Your task to perform on an android device: Add logitech g pro to the cart on bestbuy, then select checkout. Image 0: 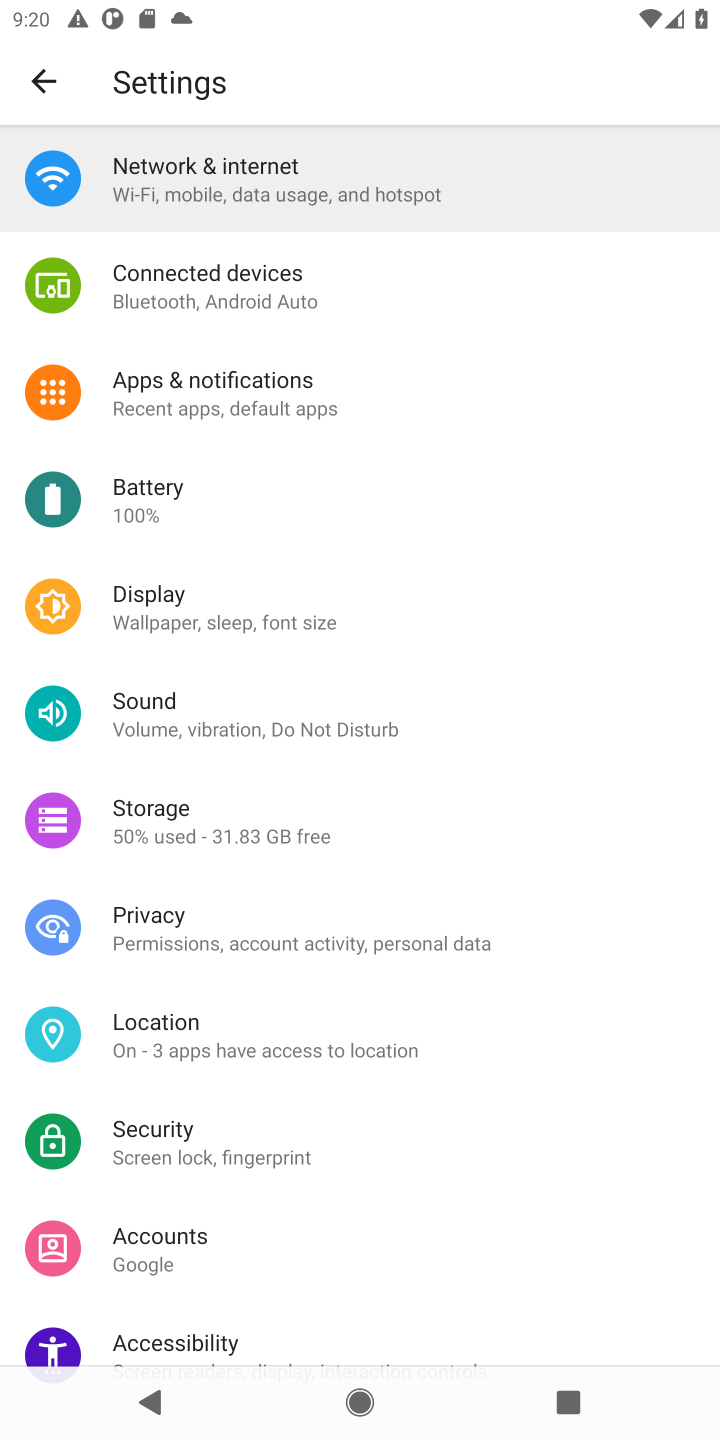
Step 0: press home button
Your task to perform on an android device: Add logitech g pro to the cart on bestbuy, then select checkout. Image 1: 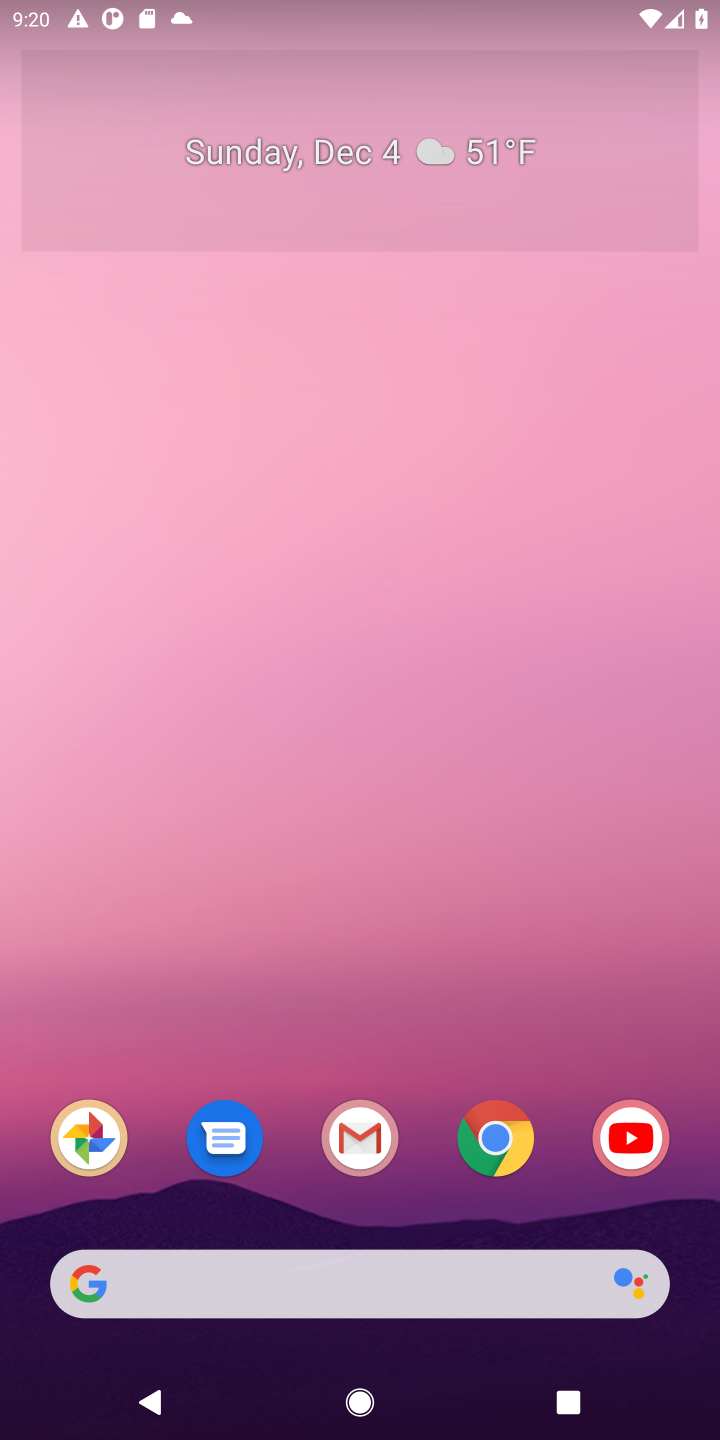
Step 1: click (478, 1144)
Your task to perform on an android device: Add logitech g pro to the cart on bestbuy, then select checkout. Image 2: 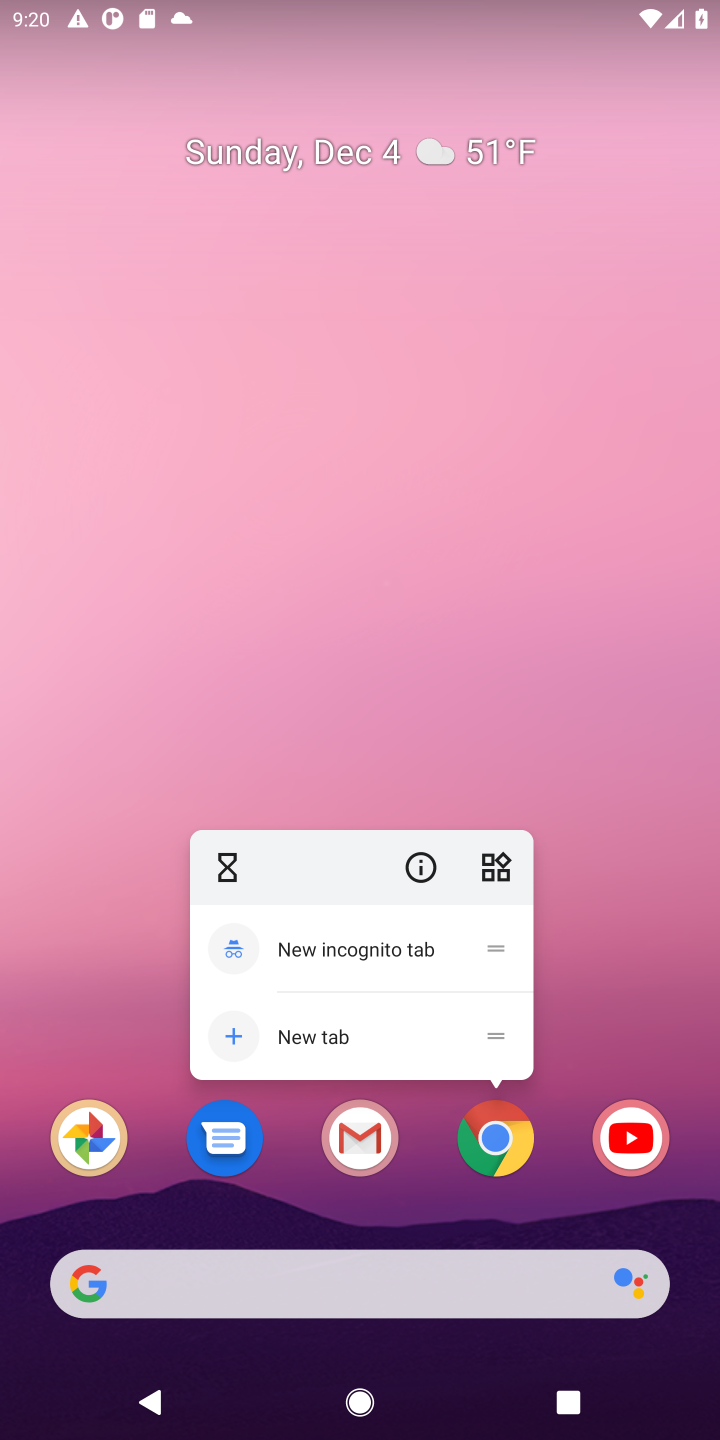
Step 2: click (478, 1144)
Your task to perform on an android device: Add logitech g pro to the cart on bestbuy, then select checkout. Image 3: 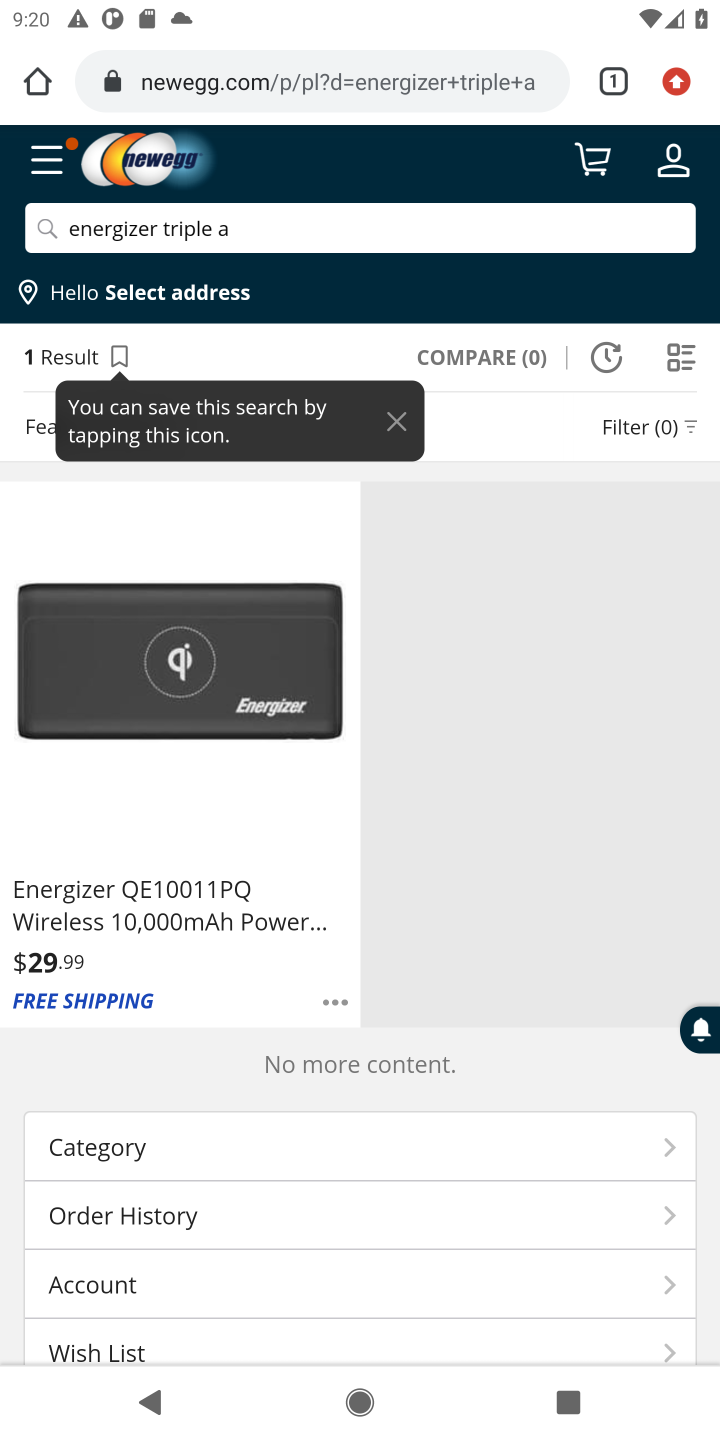
Step 3: click (433, 86)
Your task to perform on an android device: Add logitech g pro to the cart on bestbuy, then select checkout. Image 4: 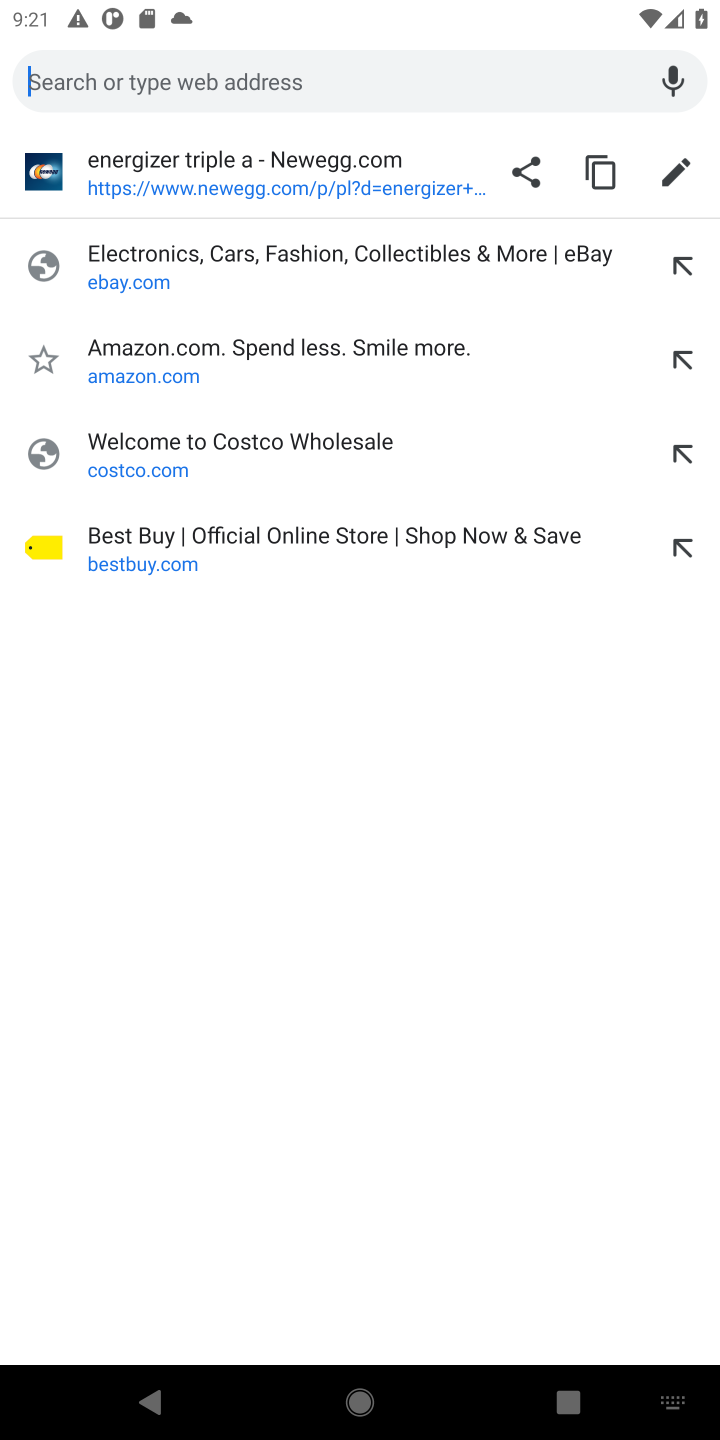
Step 4: click (250, 534)
Your task to perform on an android device: Add logitech g pro to the cart on bestbuy, then select checkout. Image 5: 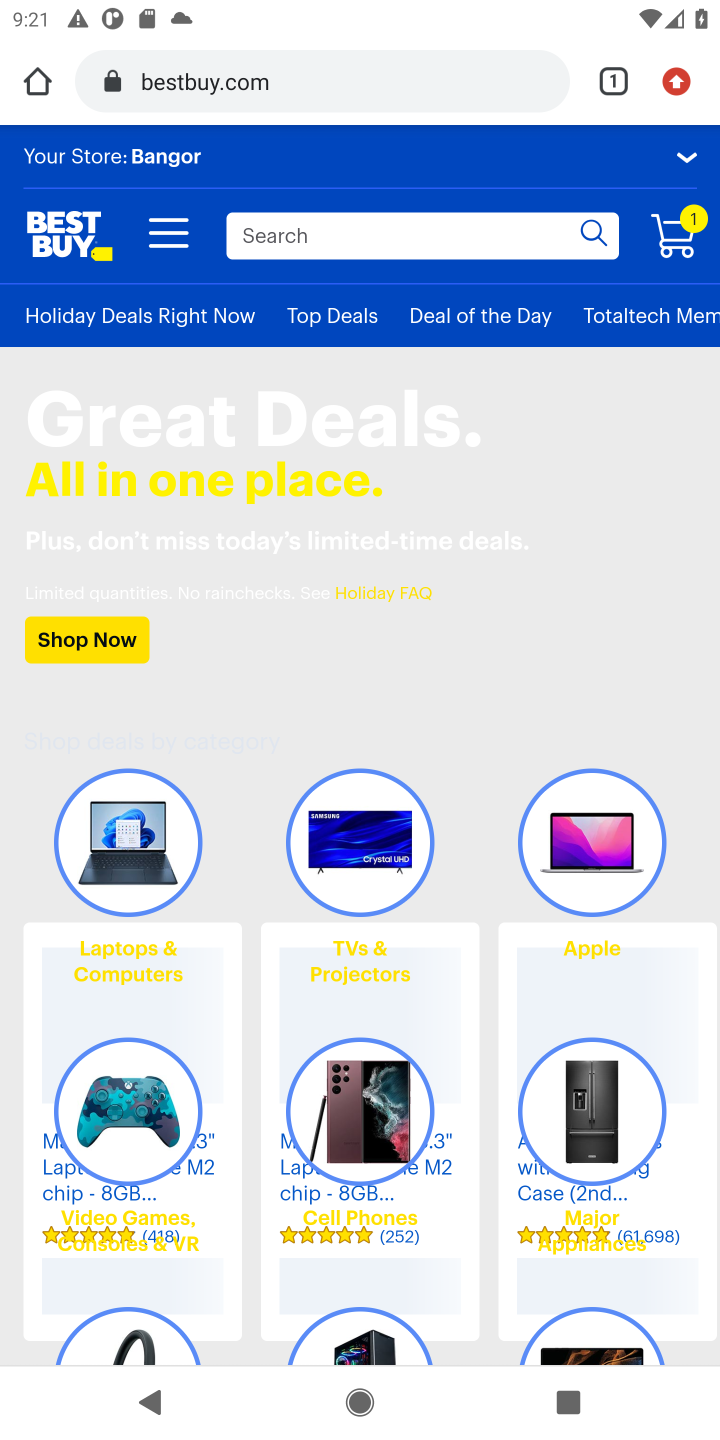
Step 5: click (507, 218)
Your task to perform on an android device: Add logitech g pro to the cart on bestbuy, then select checkout. Image 6: 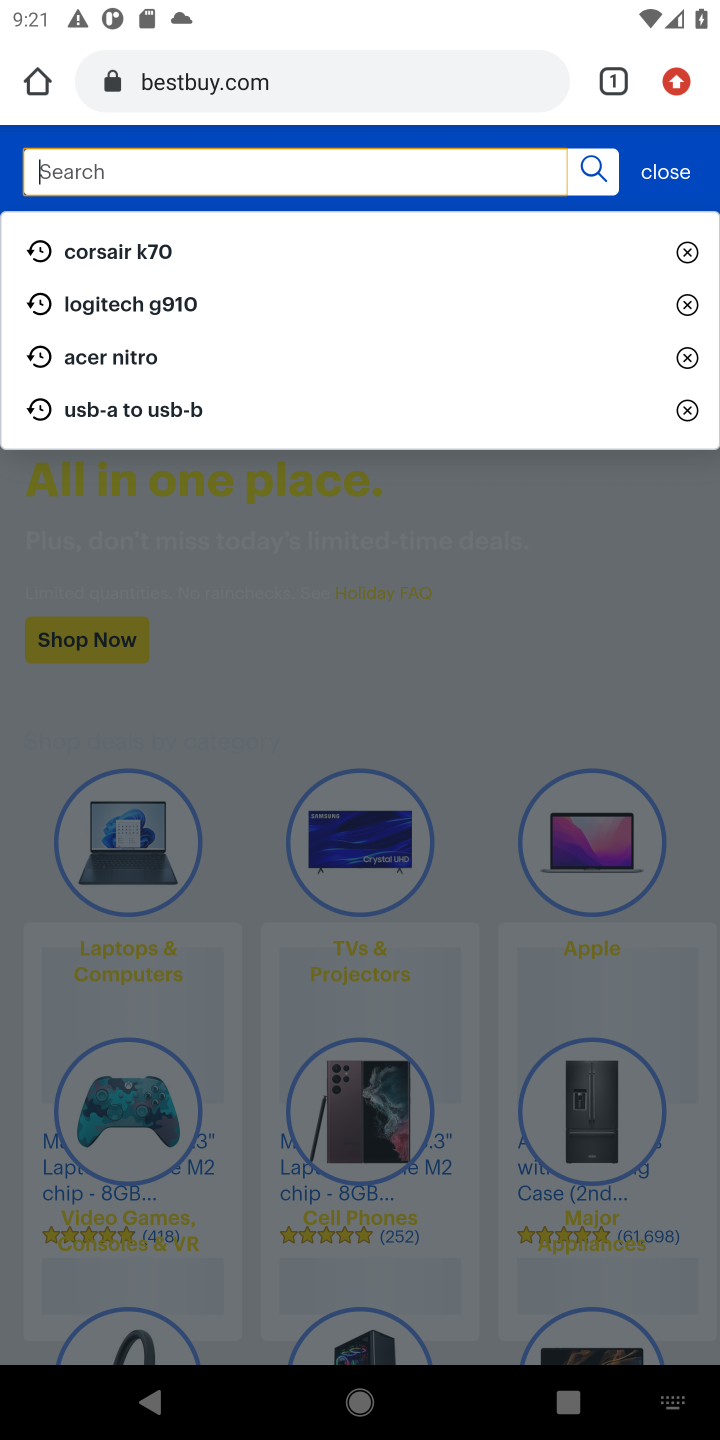
Step 6: press enter
Your task to perform on an android device: Add logitech g pro to the cart on bestbuy, then select checkout. Image 7: 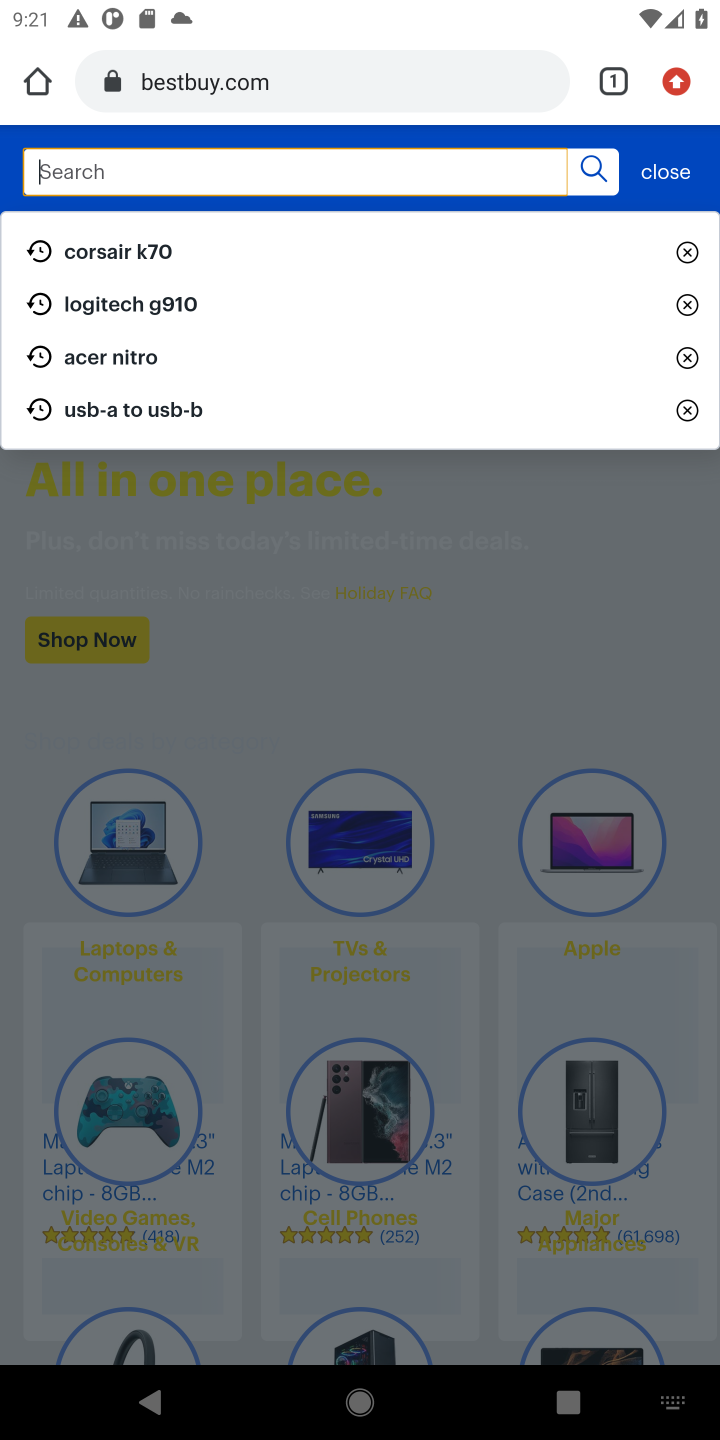
Step 7: type "logitech g pro"
Your task to perform on an android device: Add logitech g pro to the cart on bestbuy, then select checkout. Image 8: 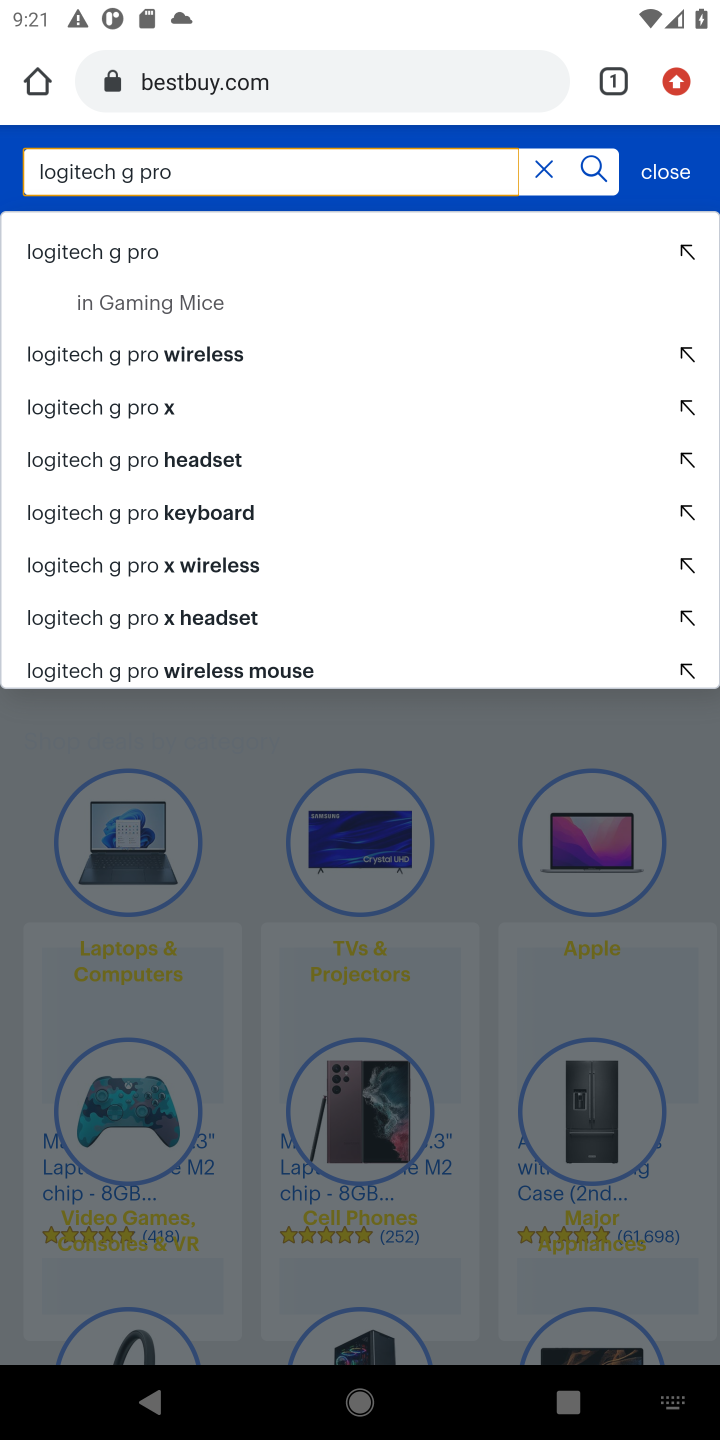
Step 8: click (114, 254)
Your task to perform on an android device: Add logitech g pro to the cart on bestbuy, then select checkout. Image 9: 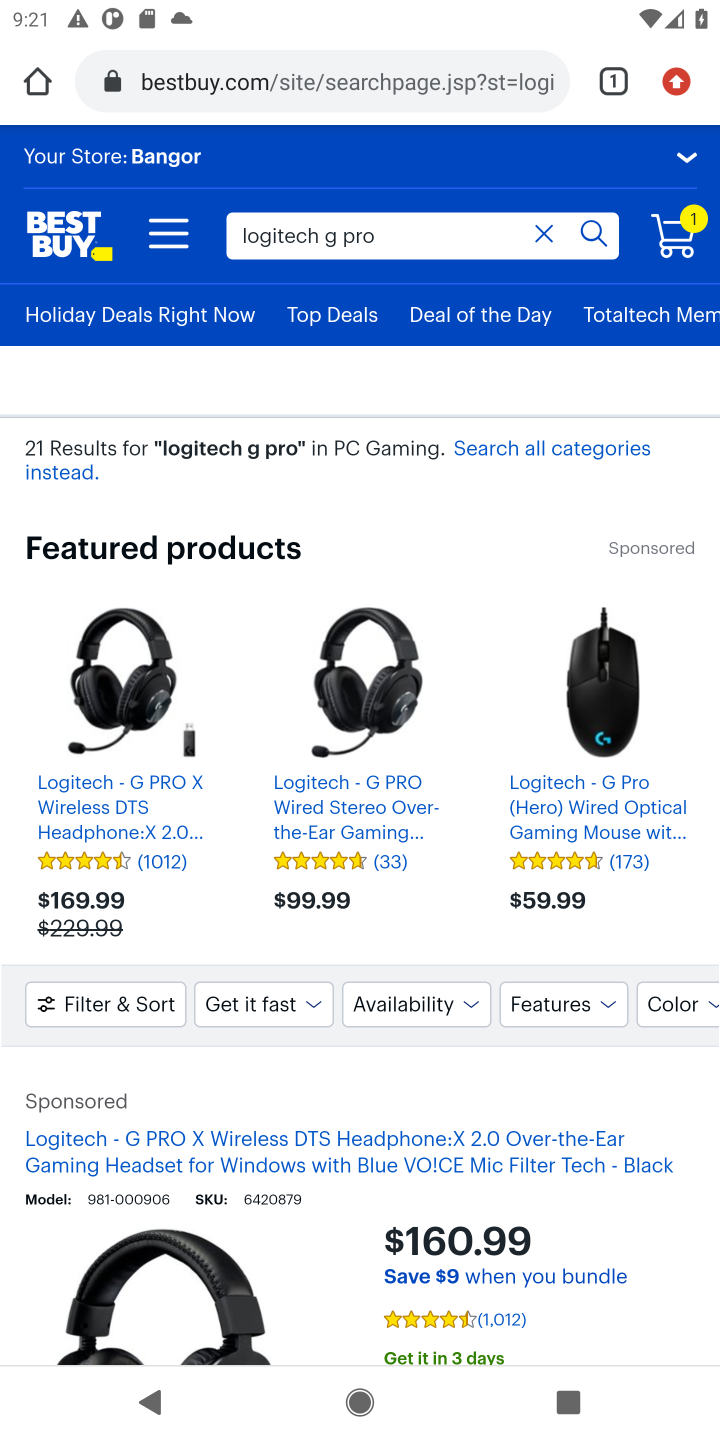
Step 9: click (163, 1291)
Your task to perform on an android device: Add logitech g pro to the cart on bestbuy, then select checkout. Image 10: 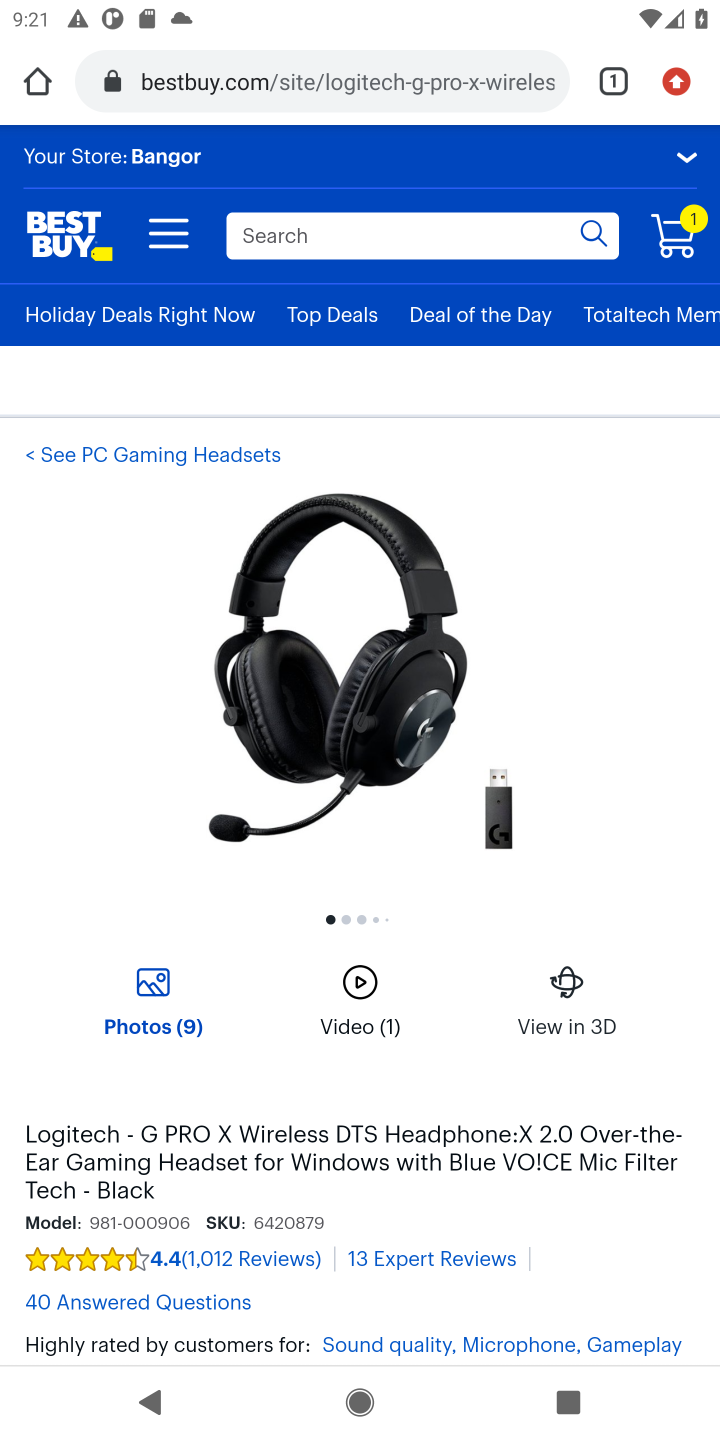
Step 10: drag from (625, 974) to (686, 306)
Your task to perform on an android device: Add logitech g pro to the cart on bestbuy, then select checkout. Image 11: 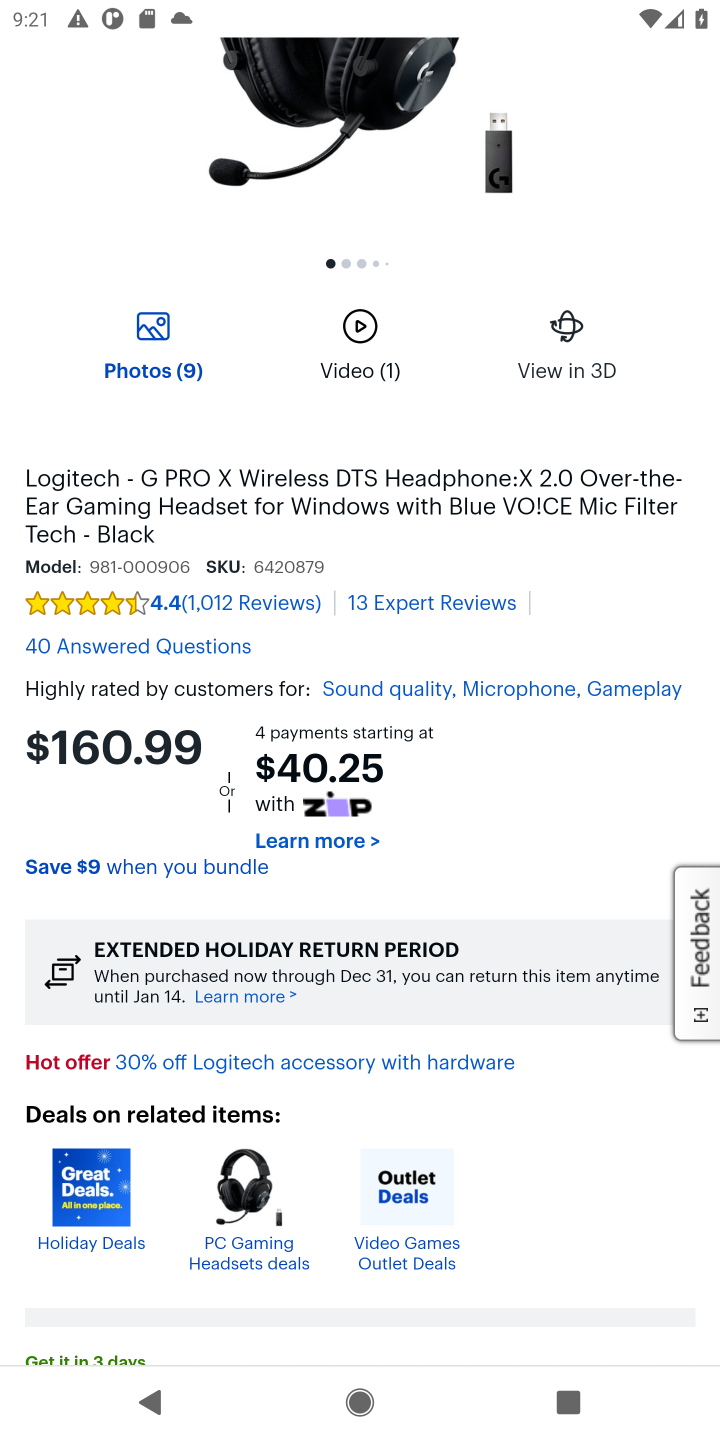
Step 11: drag from (636, 986) to (618, 357)
Your task to perform on an android device: Add logitech g pro to the cart on bestbuy, then select checkout. Image 12: 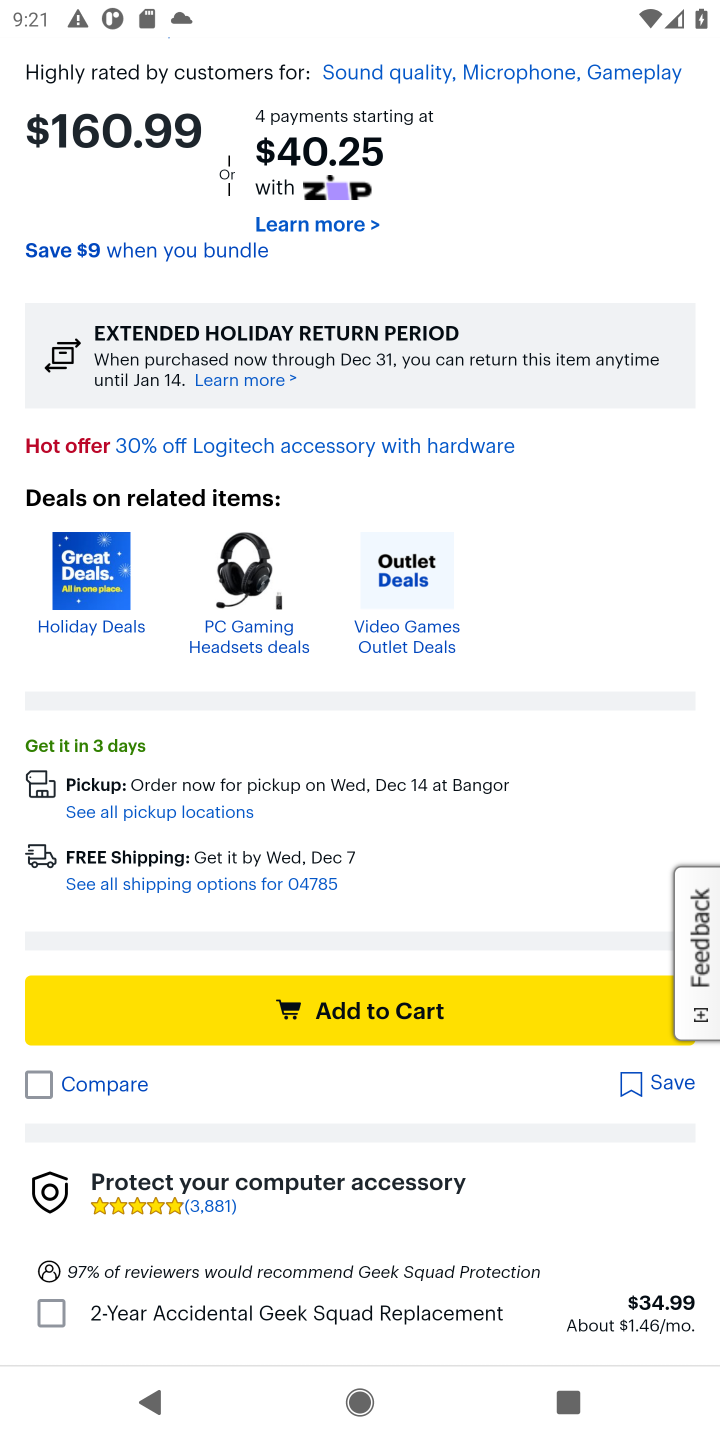
Step 12: click (381, 1006)
Your task to perform on an android device: Add logitech g pro to the cart on bestbuy, then select checkout. Image 13: 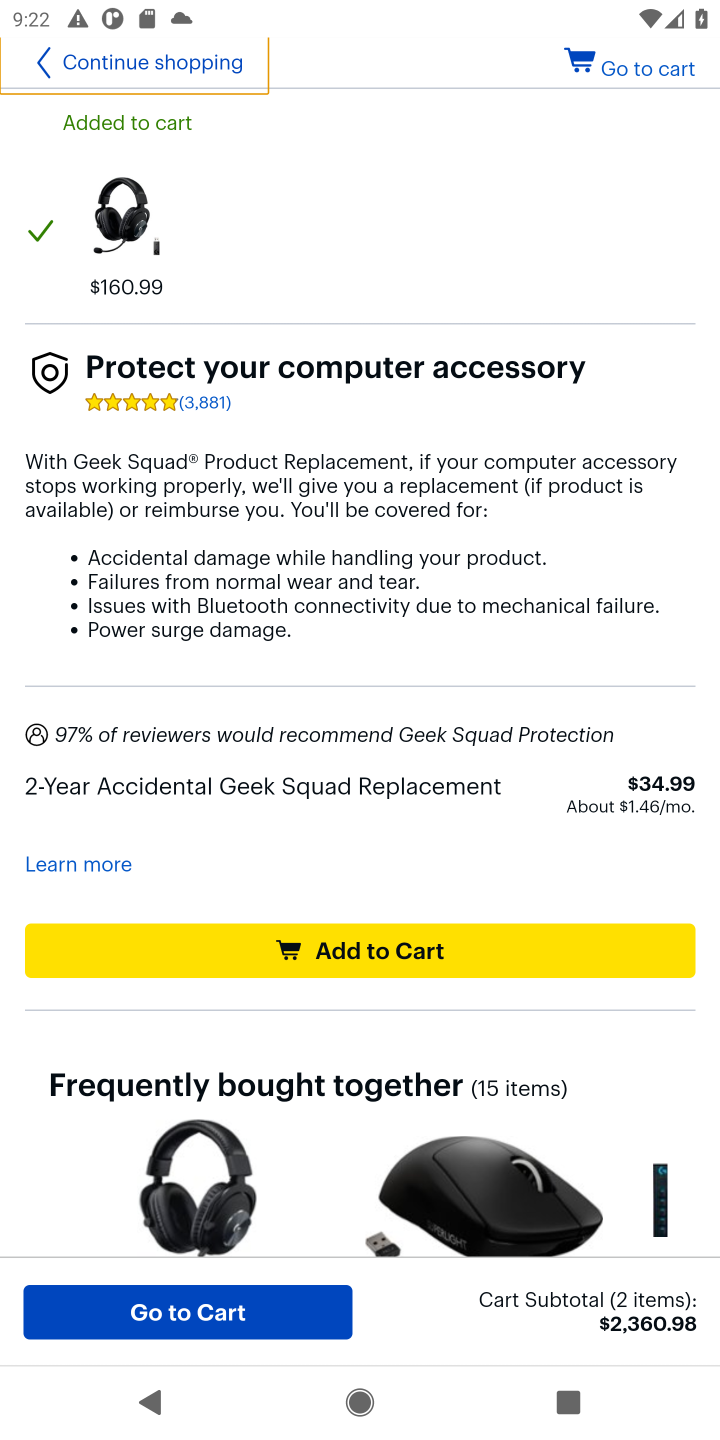
Step 13: click (205, 1315)
Your task to perform on an android device: Add logitech g pro to the cart on bestbuy, then select checkout. Image 14: 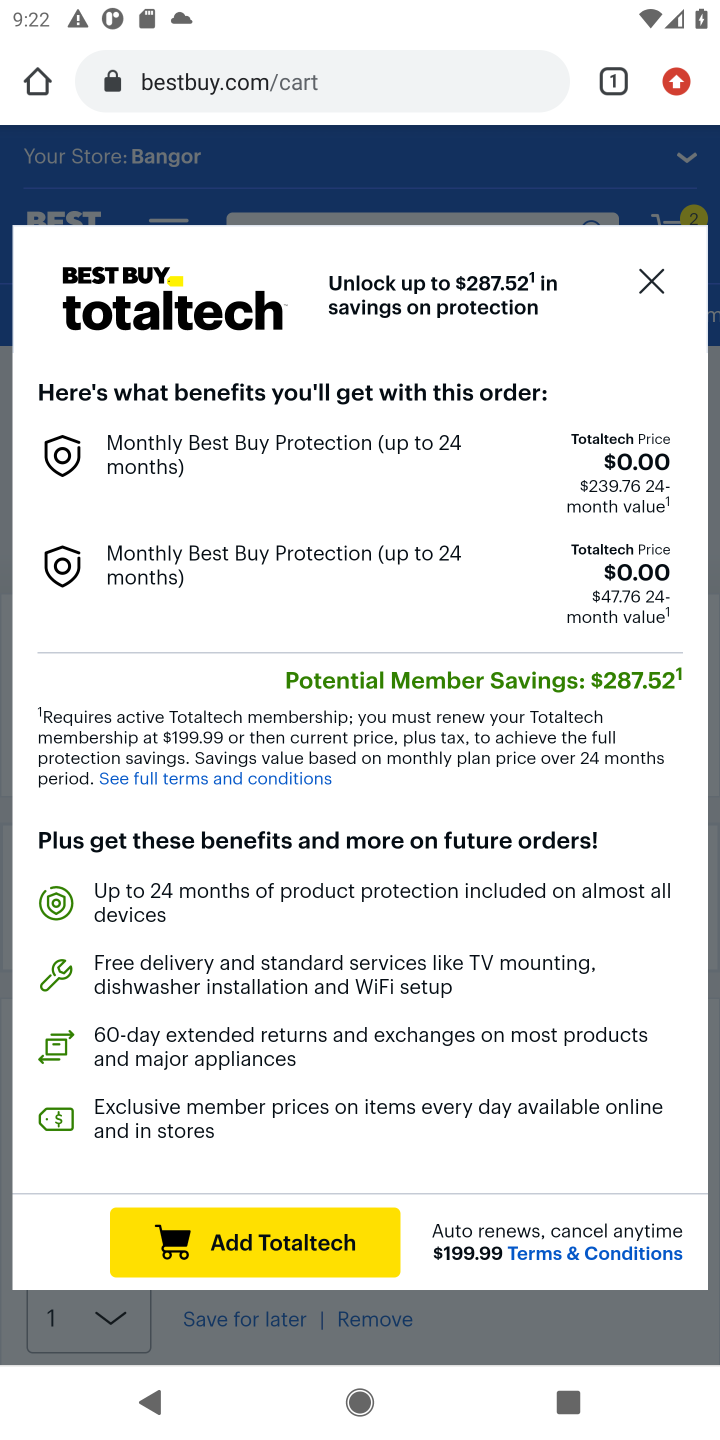
Step 14: click (657, 282)
Your task to perform on an android device: Add logitech g pro to the cart on bestbuy, then select checkout. Image 15: 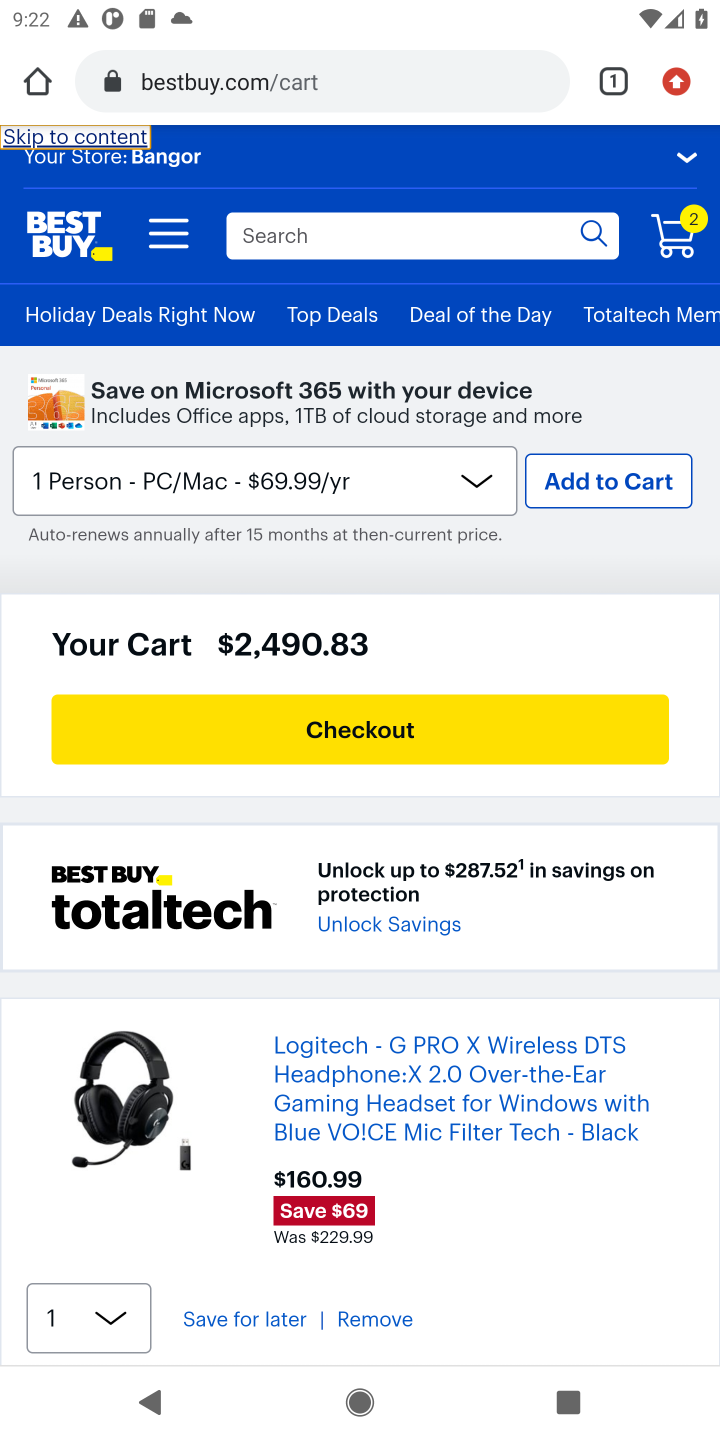
Step 15: click (389, 720)
Your task to perform on an android device: Add logitech g pro to the cart on bestbuy, then select checkout. Image 16: 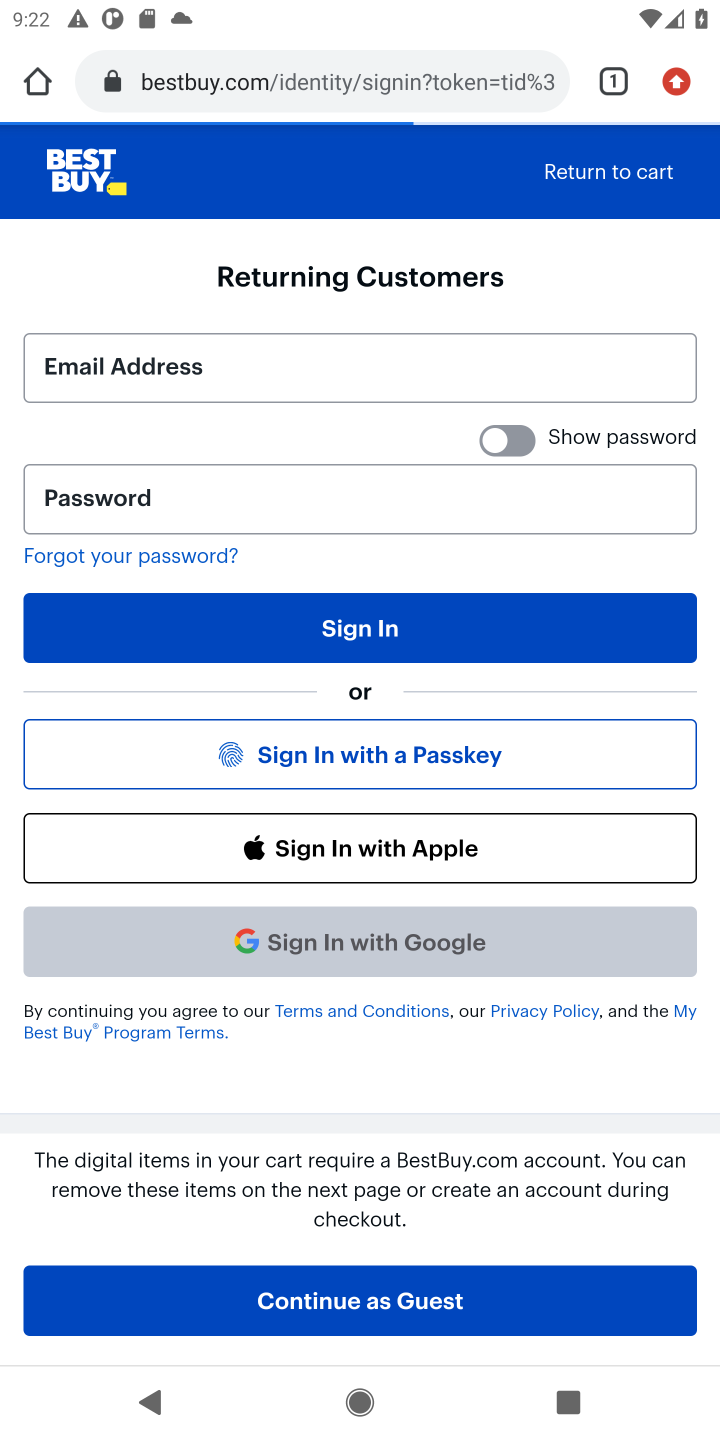
Step 16: task complete